Your task to perform on an android device: Open Chrome and go to the settings page Image 0: 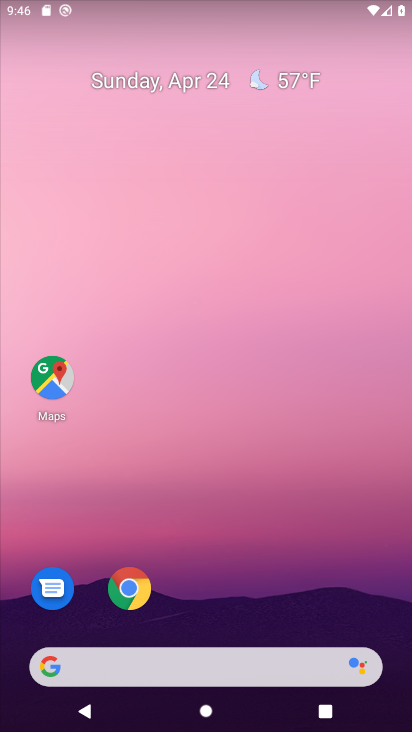
Step 0: click (131, 580)
Your task to perform on an android device: Open Chrome and go to the settings page Image 1: 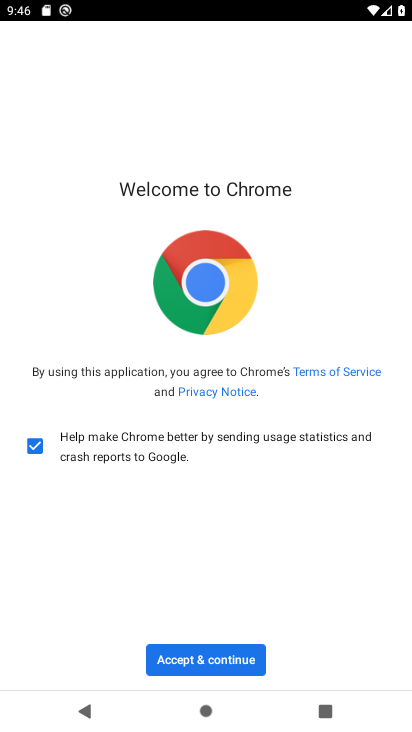
Step 1: click (225, 643)
Your task to perform on an android device: Open Chrome and go to the settings page Image 2: 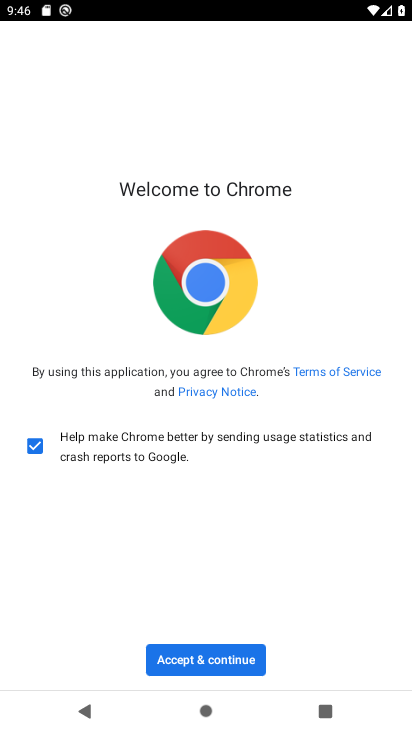
Step 2: click (233, 655)
Your task to perform on an android device: Open Chrome and go to the settings page Image 3: 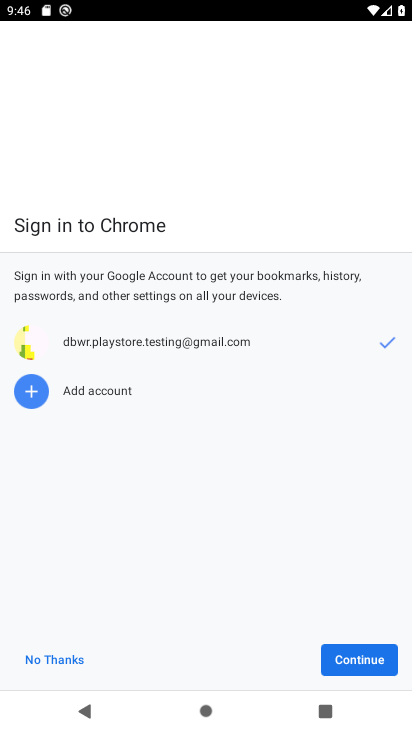
Step 3: click (377, 656)
Your task to perform on an android device: Open Chrome and go to the settings page Image 4: 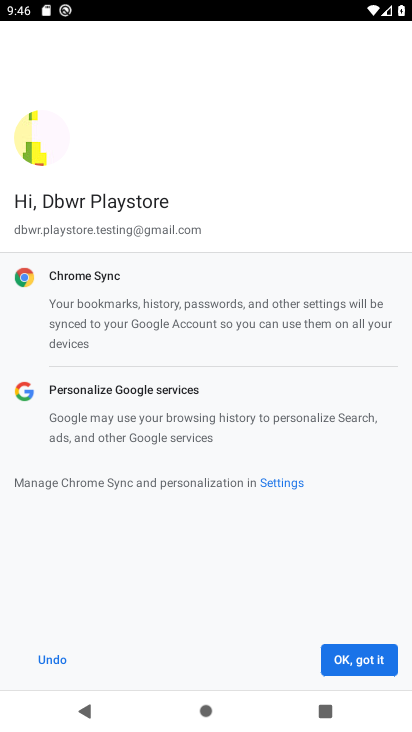
Step 4: press home button
Your task to perform on an android device: Open Chrome and go to the settings page Image 5: 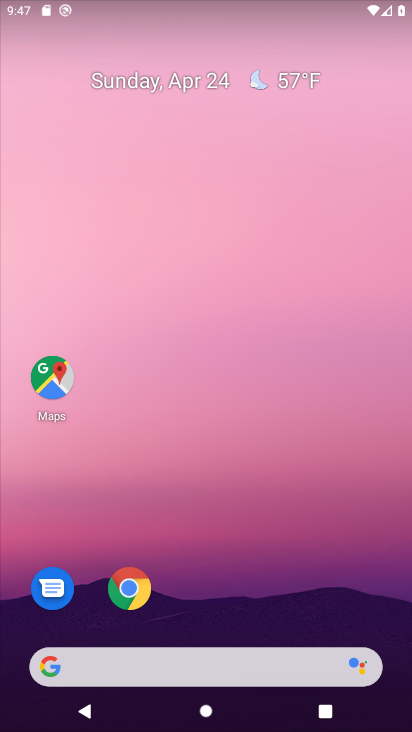
Step 5: click (137, 588)
Your task to perform on an android device: Open Chrome and go to the settings page Image 6: 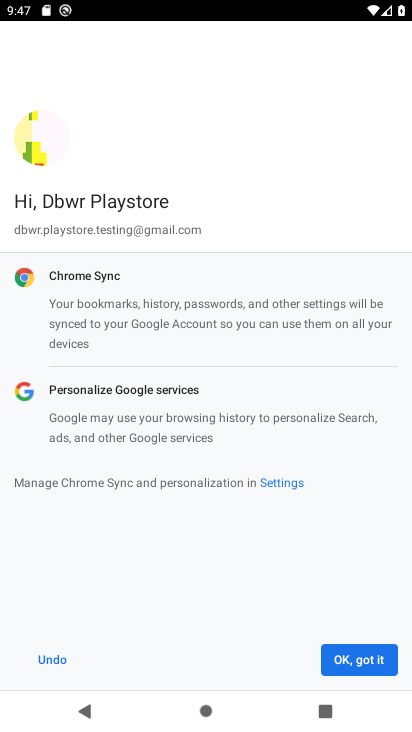
Step 6: click (363, 659)
Your task to perform on an android device: Open Chrome and go to the settings page Image 7: 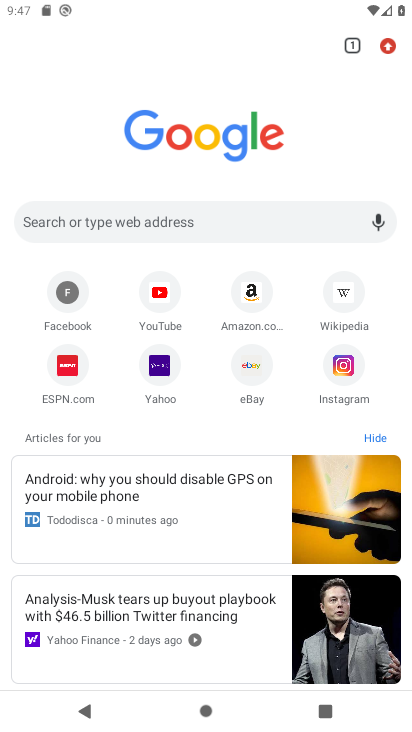
Step 7: click (390, 47)
Your task to perform on an android device: Open Chrome and go to the settings page Image 8: 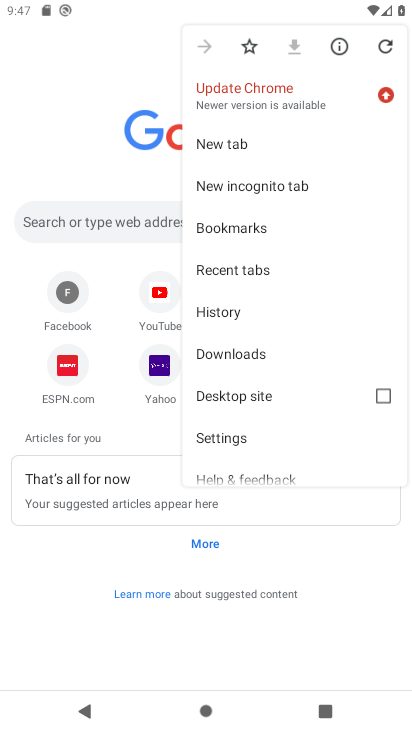
Step 8: click (258, 438)
Your task to perform on an android device: Open Chrome and go to the settings page Image 9: 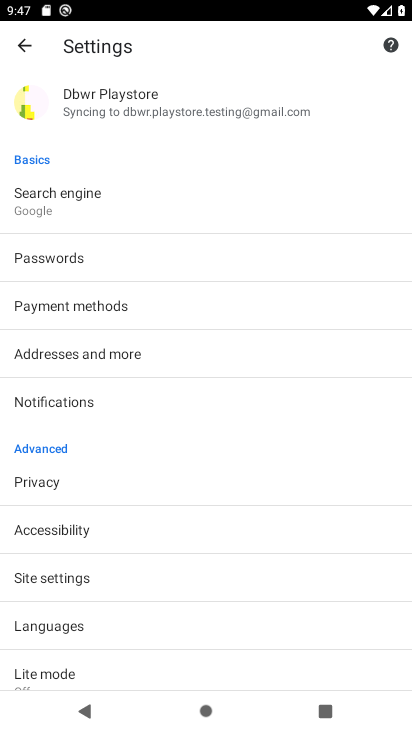
Step 9: task complete